Your task to perform on an android device: Open accessibility settings Image 0: 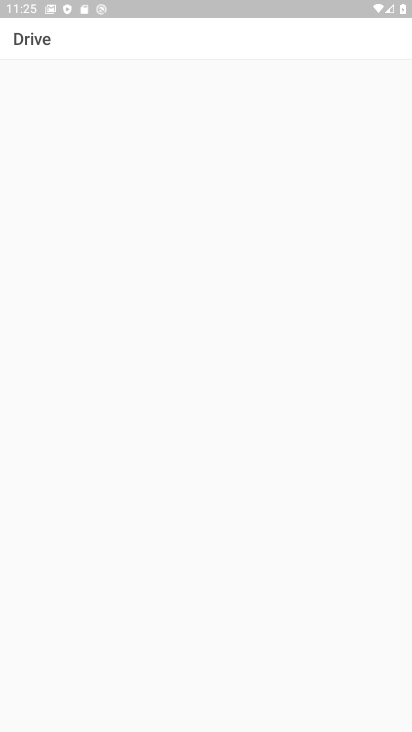
Step 0: press home button
Your task to perform on an android device: Open accessibility settings Image 1: 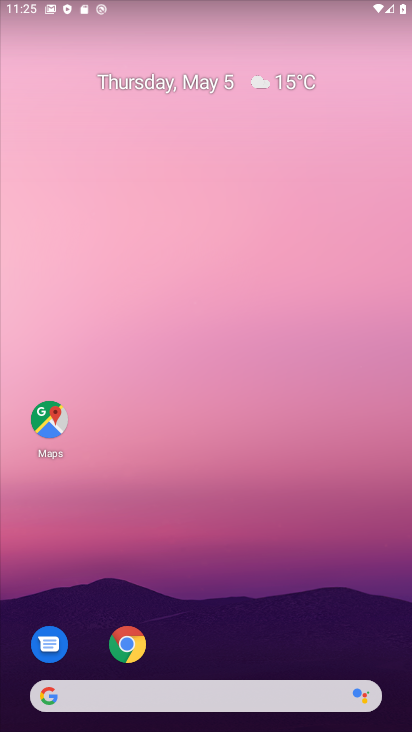
Step 1: drag from (179, 574) to (231, 47)
Your task to perform on an android device: Open accessibility settings Image 2: 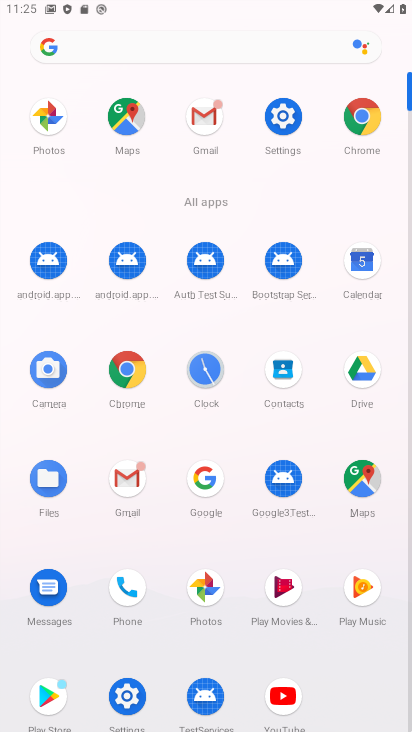
Step 2: click (289, 109)
Your task to perform on an android device: Open accessibility settings Image 3: 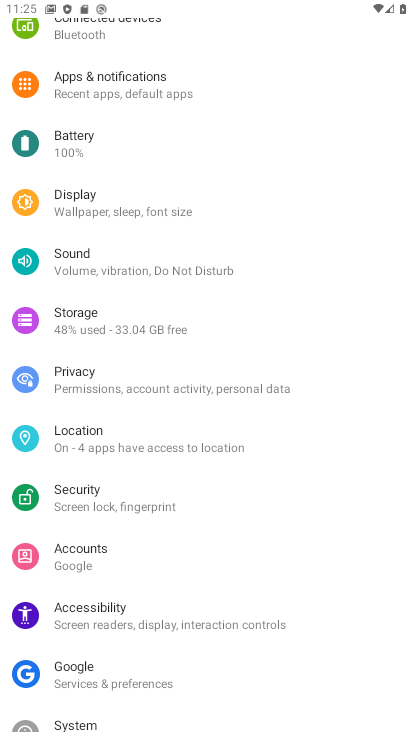
Step 3: click (138, 605)
Your task to perform on an android device: Open accessibility settings Image 4: 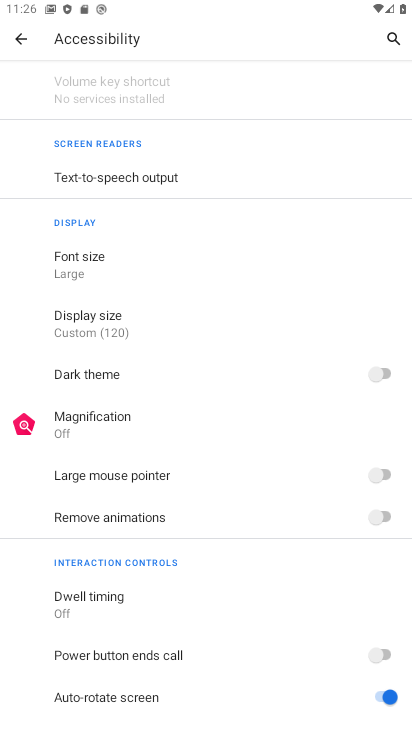
Step 4: task complete